Your task to perform on an android device: change timer sound Image 0: 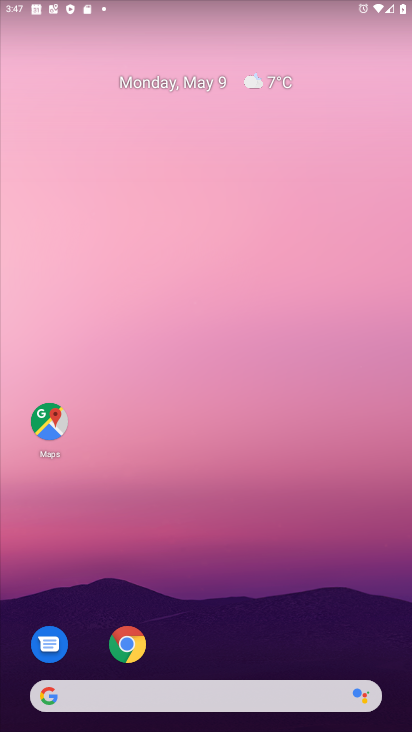
Step 0: drag from (296, 632) to (134, 137)
Your task to perform on an android device: change timer sound Image 1: 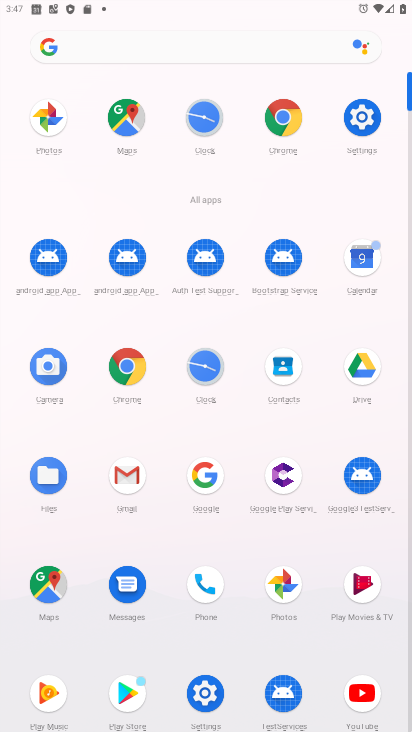
Step 1: click (202, 117)
Your task to perform on an android device: change timer sound Image 2: 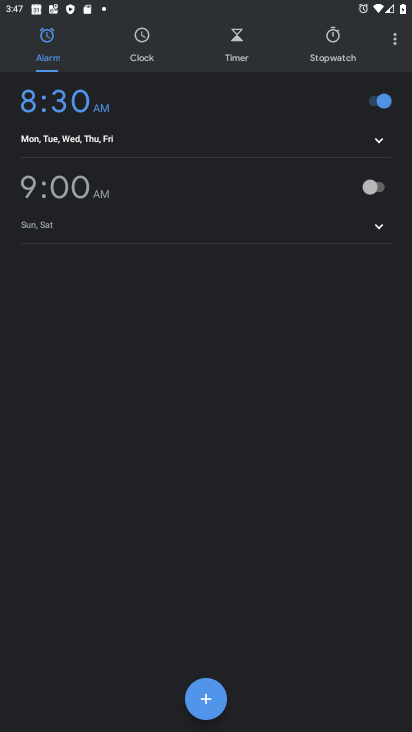
Step 2: click (392, 28)
Your task to perform on an android device: change timer sound Image 3: 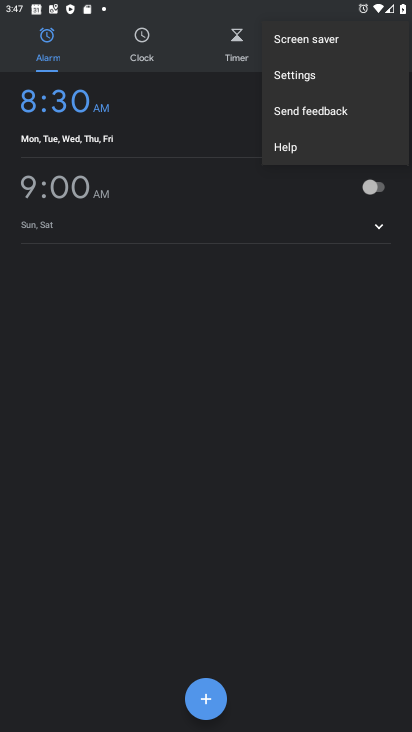
Step 3: click (299, 80)
Your task to perform on an android device: change timer sound Image 4: 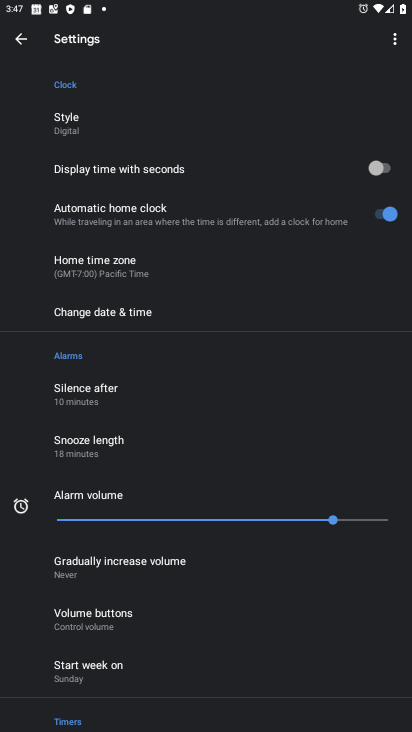
Step 4: drag from (107, 523) to (87, 82)
Your task to perform on an android device: change timer sound Image 5: 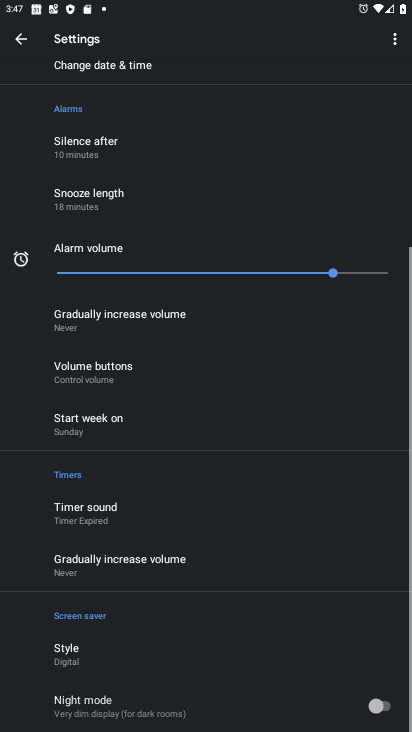
Step 5: drag from (130, 434) to (130, 95)
Your task to perform on an android device: change timer sound Image 6: 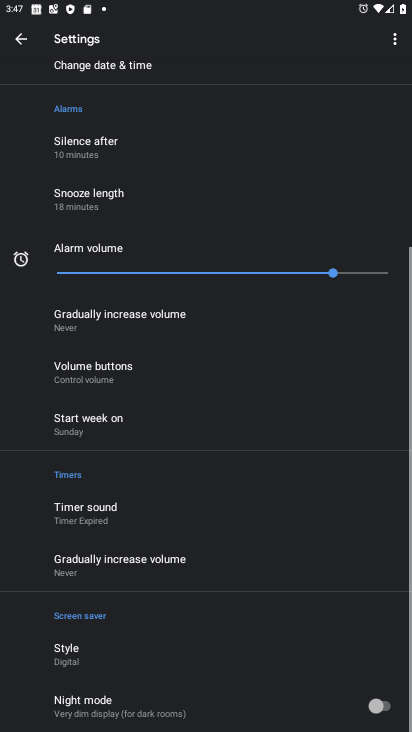
Step 6: drag from (208, 510) to (168, 84)
Your task to perform on an android device: change timer sound Image 7: 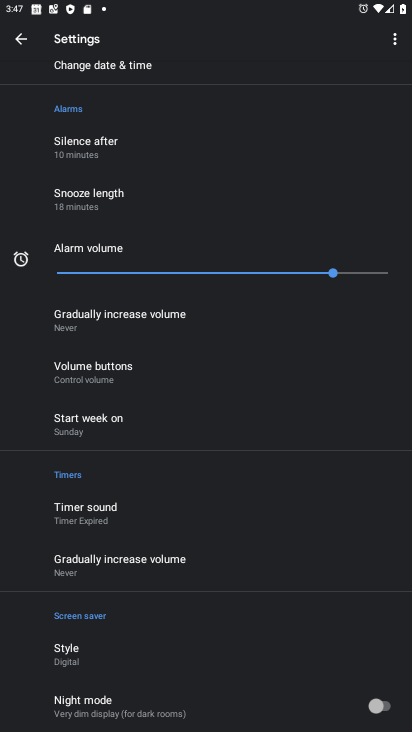
Step 7: click (80, 510)
Your task to perform on an android device: change timer sound Image 8: 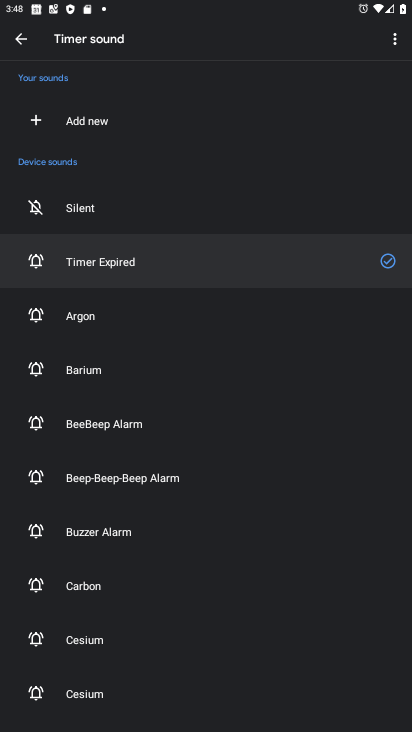
Step 8: click (77, 422)
Your task to perform on an android device: change timer sound Image 9: 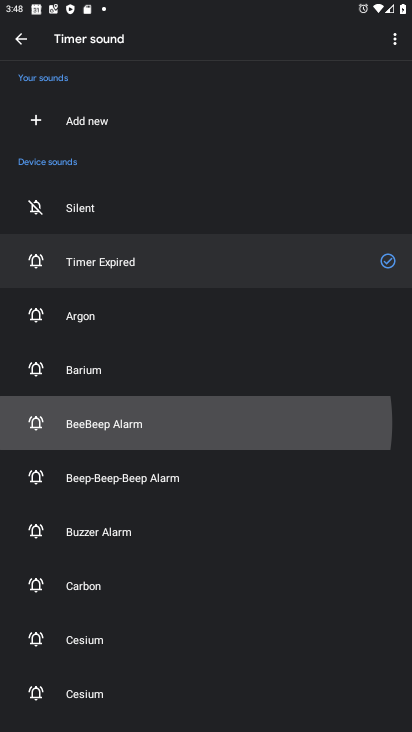
Step 9: click (77, 422)
Your task to perform on an android device: change timer sound Image 10: 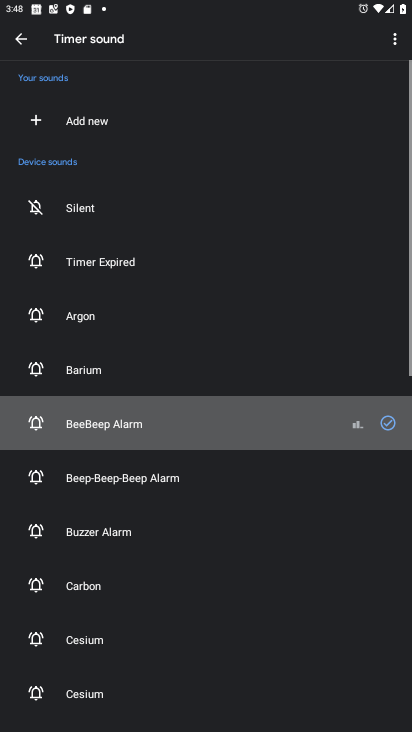
Step 10: click (77, 422)
Your task to perform on an android device: change timer sound Image 11: 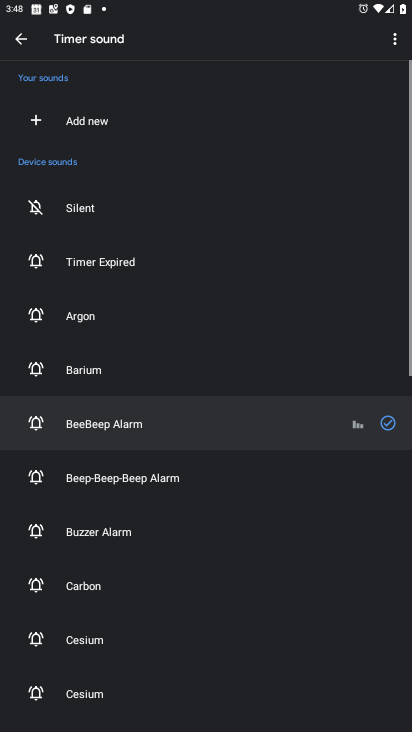
Step 11: task complete